Your task to perform on an android device: open app "PlayWell" (install if not already installed) and go to login screen Image 0: 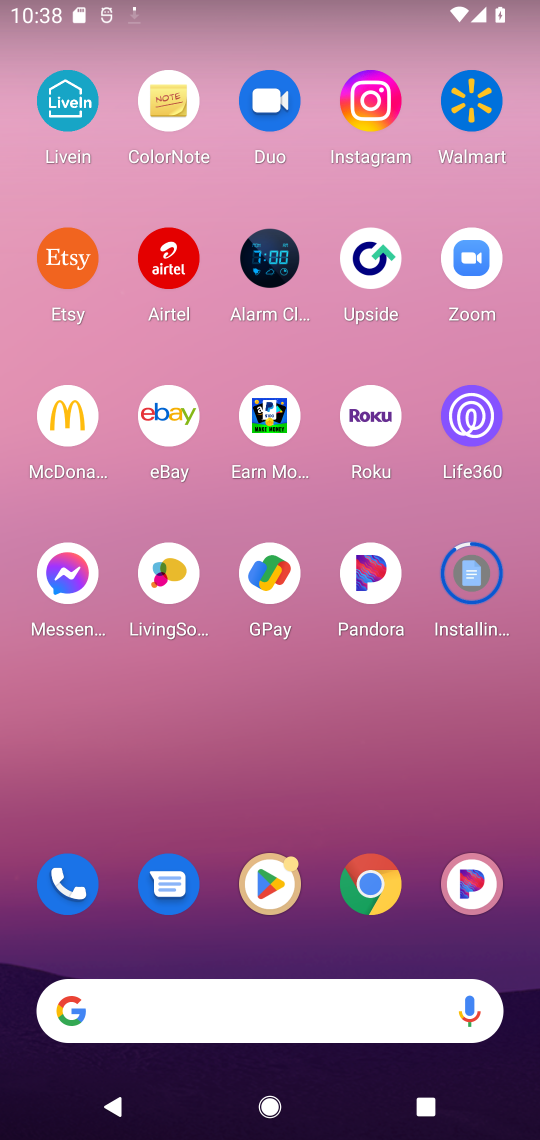
Step 0: click (277, 898)
Your task to perform on an android device: open app "PlayWell" (install if not already installed) and go to login screen Image 1: 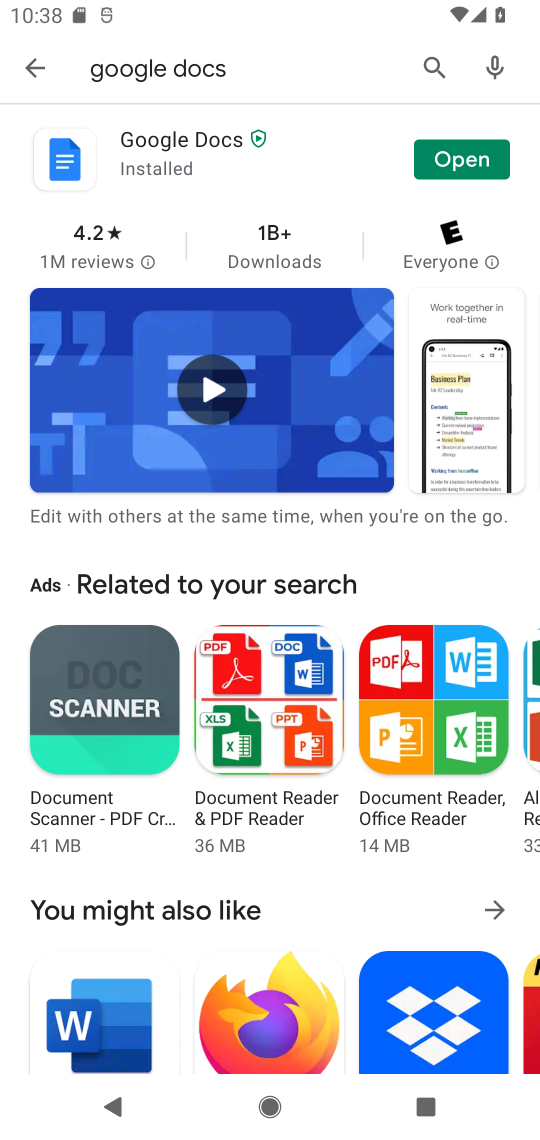
Step 1: click (430, 74)
Your task to perform on an android device: open app "PlayWell" (install if not already installed) and go to login screen Image 2: 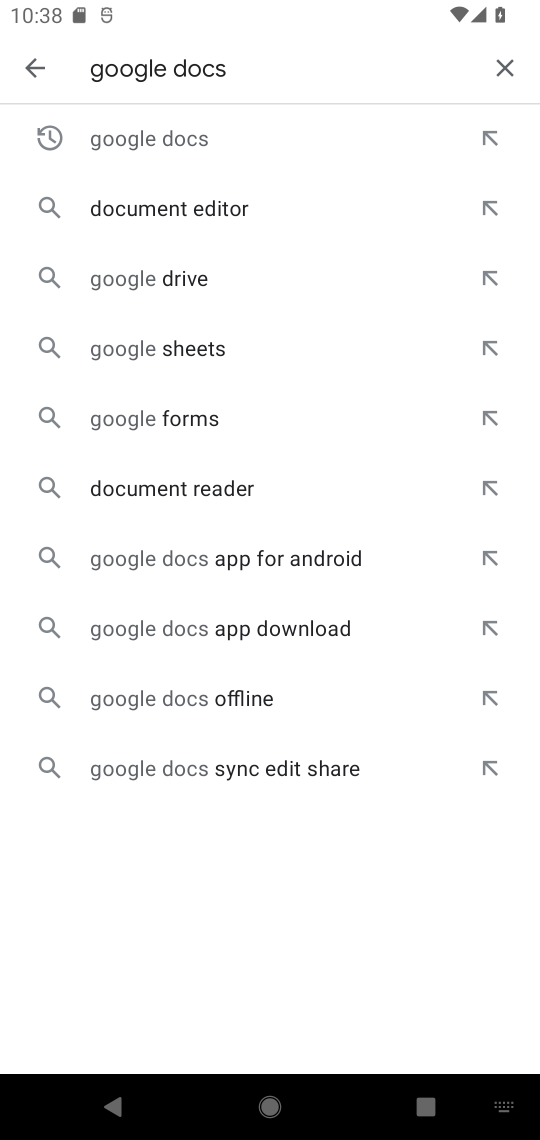
Step 2: click (510, 84)
Your task to perform on an android device: open app "PlayWell" (install if not already installed) and go to login screen Image 3: 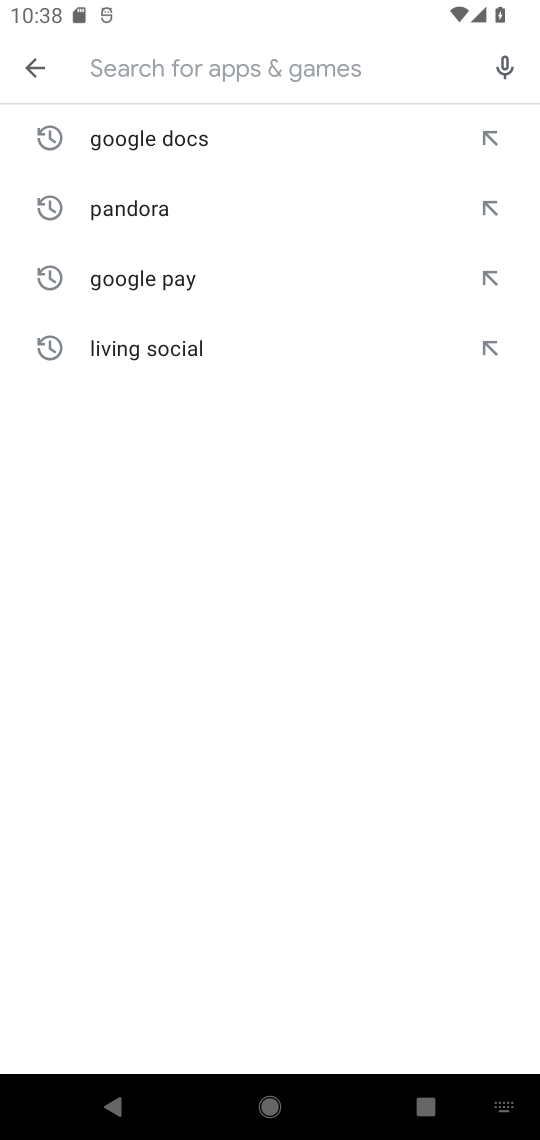
Step 3: type "palywell"
Your task to perform on an android device: open app "PlayWell" (install if not already installed) and go to login screen Image 4: 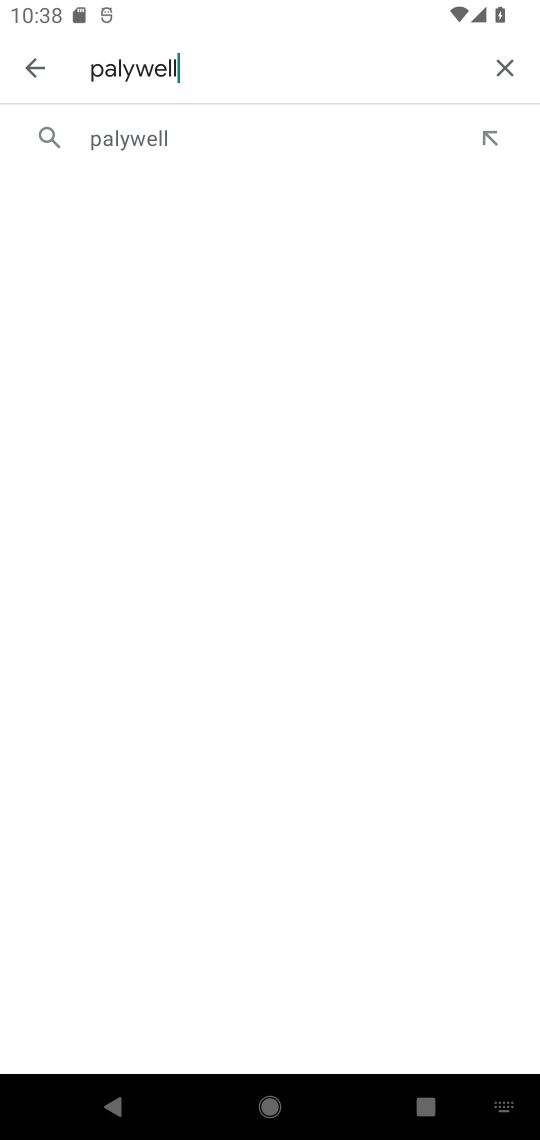
Step 4: click (273, 135)
Your task to perform on an android device: open app "PlayWell" (install if not already installed) and go to login screen Image 5: 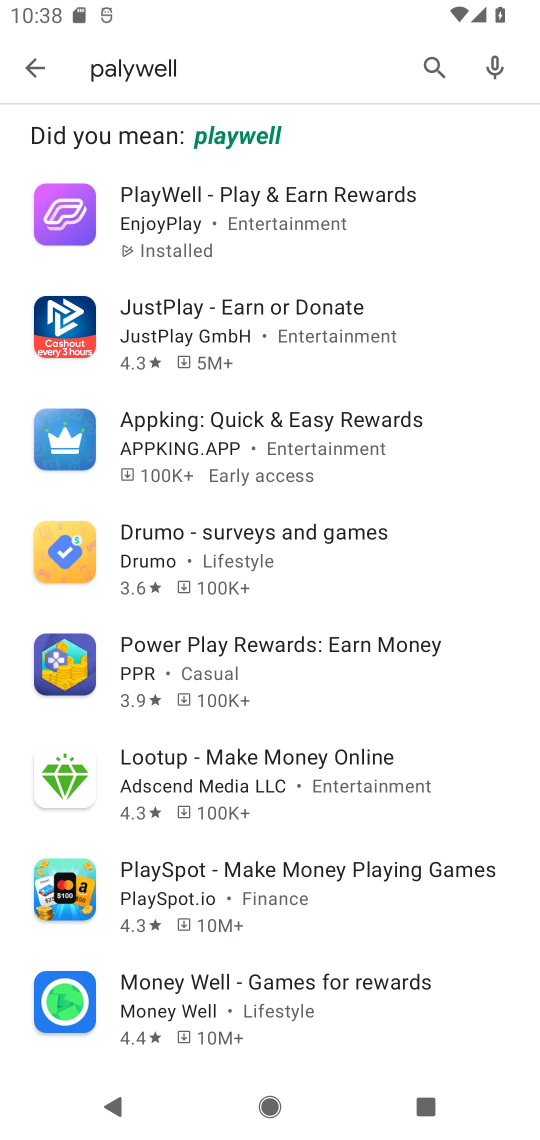
Step 5: click (341, 191)
Your task to perform on an android device: open app "PlayWell" (install if not already installed) and go to login screen Image 6: 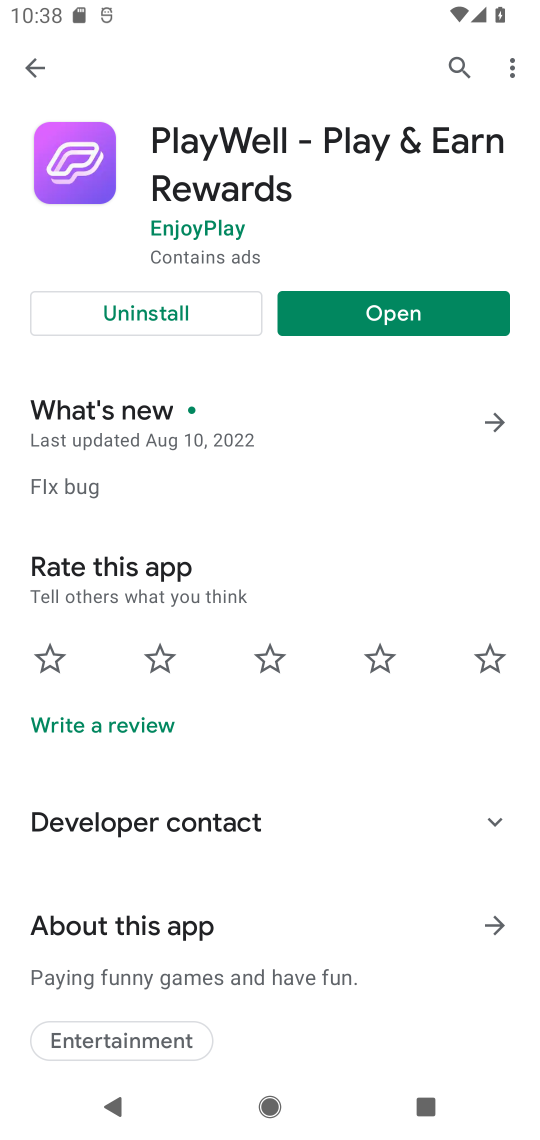
Step 6: click (382, 316)
Your task to perform on an android device: open app "PlayWell" (install if not already installed) and go to login screen Image 7: 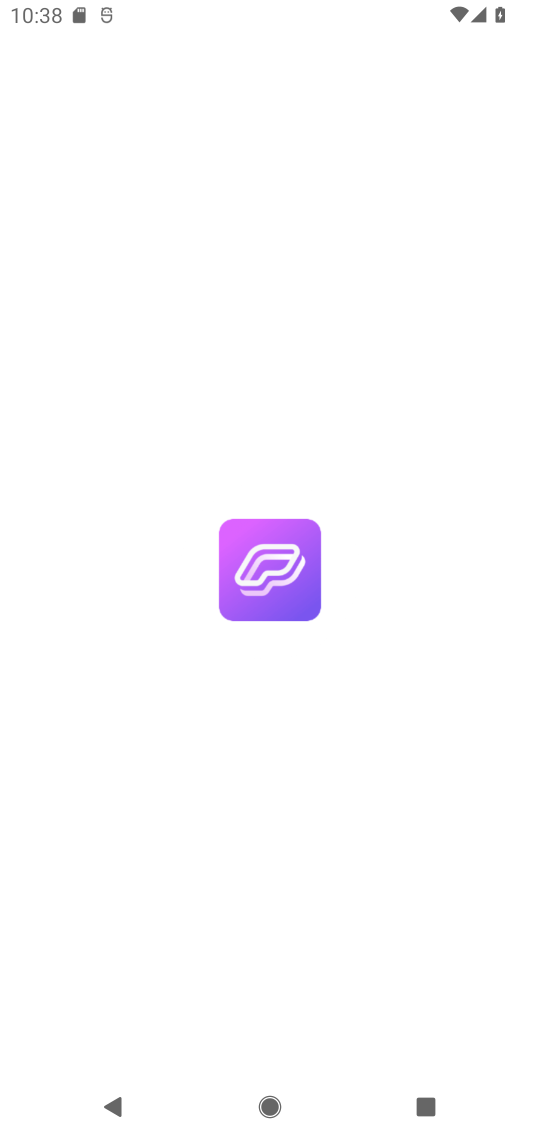
Step 7: task complete